Your task to perform on an android device: all mails in gmail Image 0: 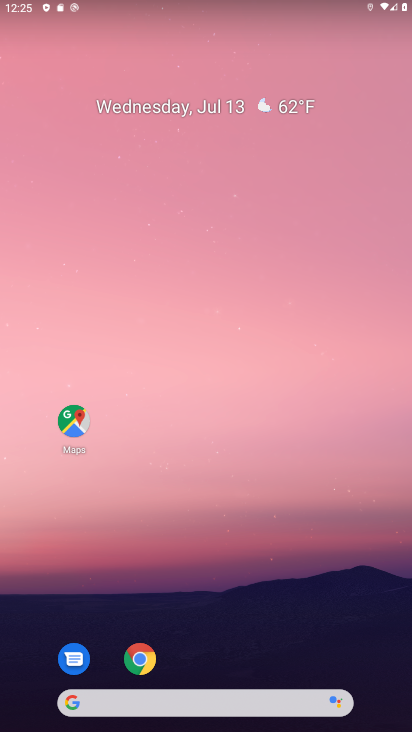
Step 0: drag from (220, 702) to (147, 238)
Your task to perform on an android device: all mails in gmail Image 1: 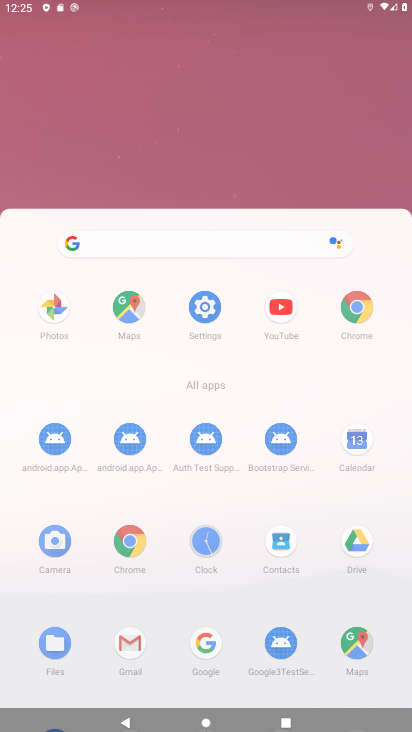
Step 1: drag from (235, 655) to (235, 323)
Your task to perform on an android device: all mails in gmail Image 2: 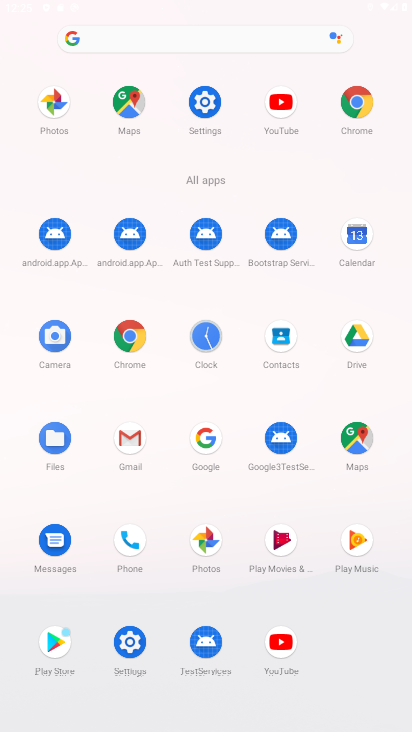
Step 2: click (128, 433)
Your task to perform on an android device: all mails in gmail Image 3: 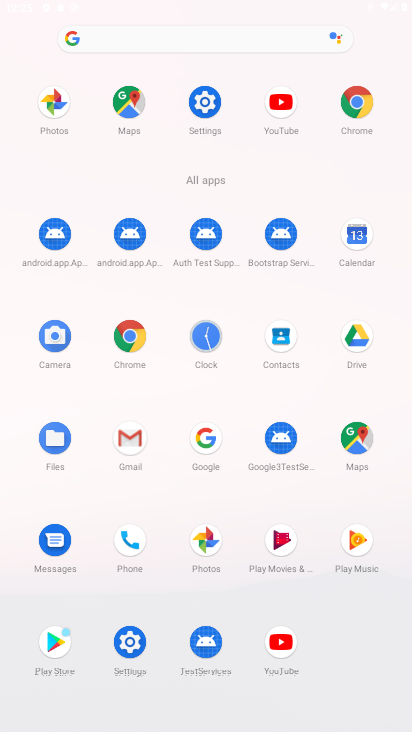
Step 3: click (127, 432)
Your task to perform on an android device: all mails in gmail Image 4: 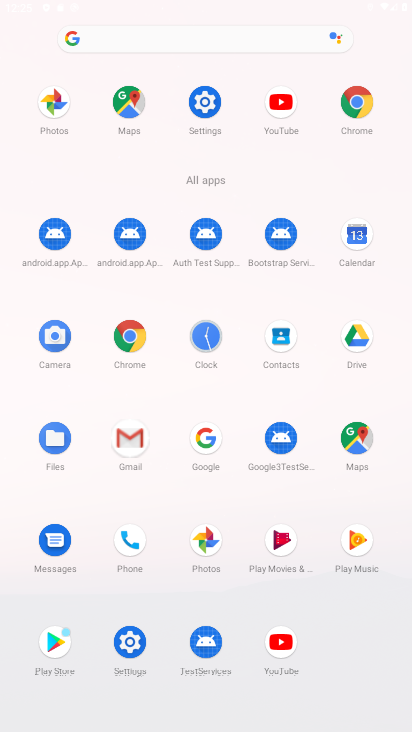
Step 4: click (129, 430)
Your task to perform on an android device: all mails in gmail Image 5: 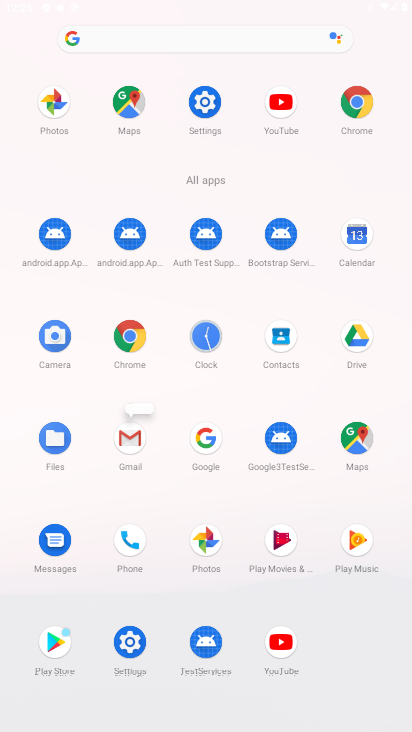
Step 5: click (129, 430)
Your task to perform on an android device: all mails in gmail Image 6: 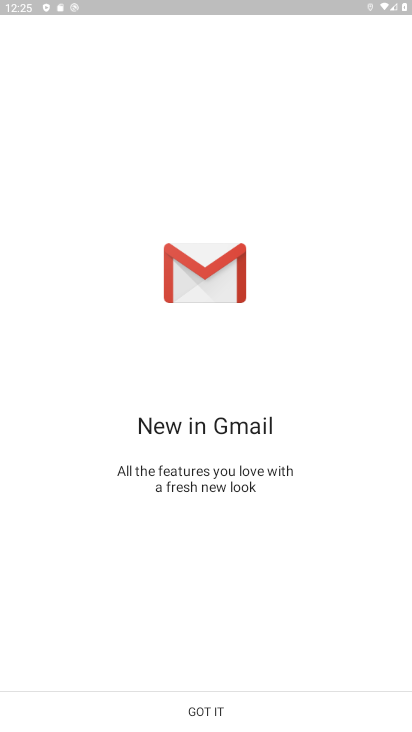
Step 6: click (217, 699)
Your task to perform on an android device: all mails in gmail Image 7: 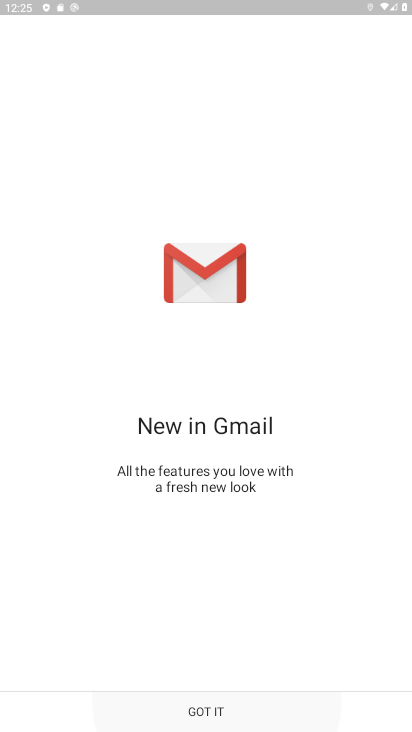
Step 7: click (217, 700)
Your task to perform on an android device: all mails in gmail Image 8: 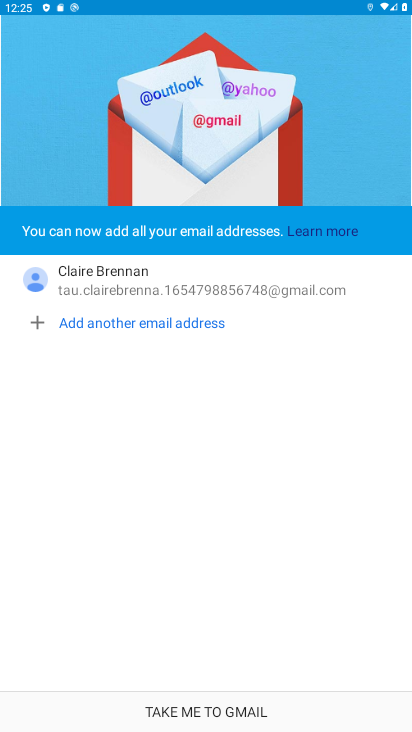
Step 8: click (202, 715)
Your task to perform on an android device: all mails in gmail Image 9: 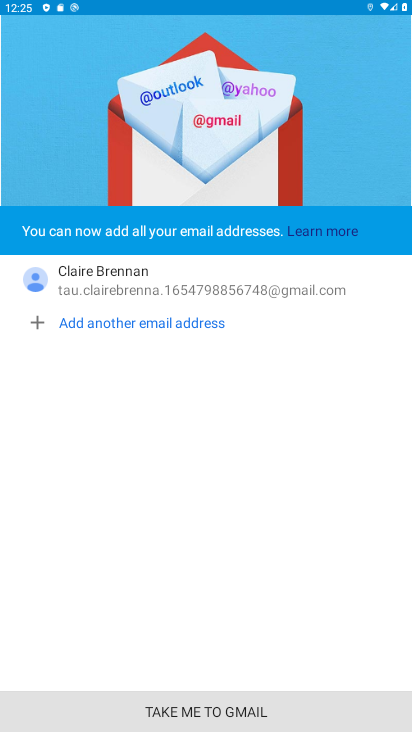
Step 9: click (202, 715)
Your task to perform on an android device: all mails in gmail Image 10: 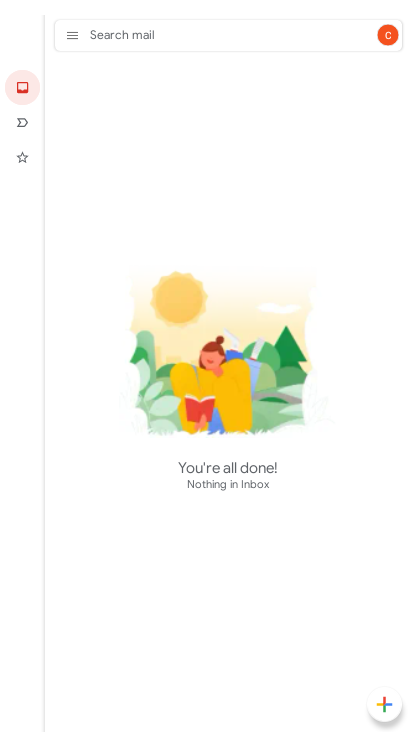
Step 10: click (75, 36)
Your task to perform on an android device: all mails in gmail Image 11: 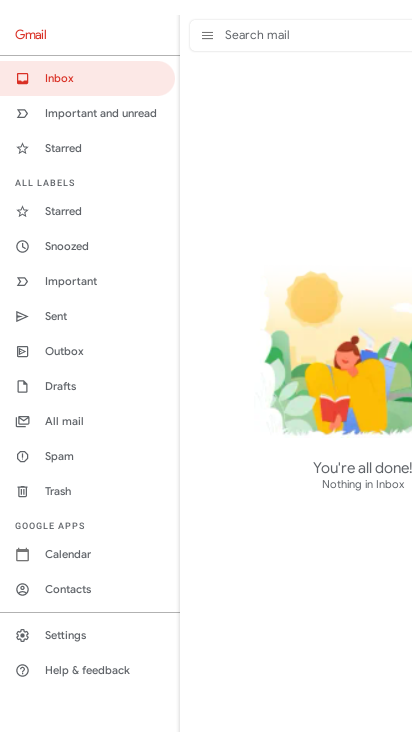
Step 11: click (191, 32)
Your task to perform on an android device: all mails in gmail Image 12: 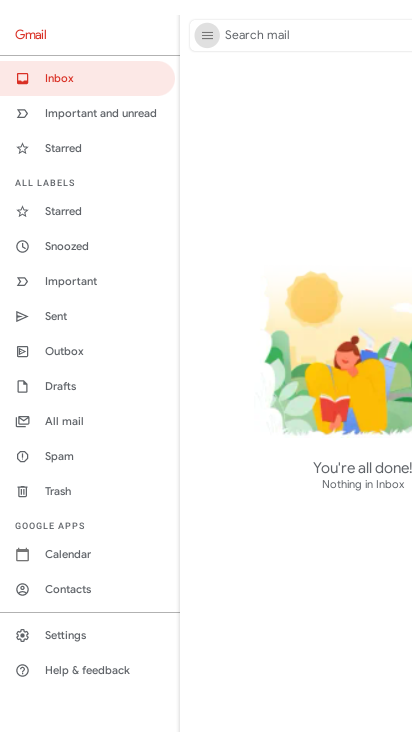
Step 12: click (191, 32)
Your task to perform on an android device: all mails in gmail Image 13: 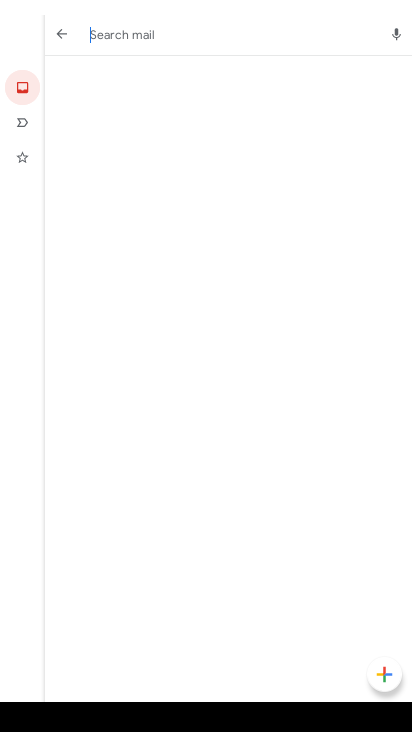
Step 13: click (65, 29)
Your task to perform on an android device: all mails in gmail Image 14: 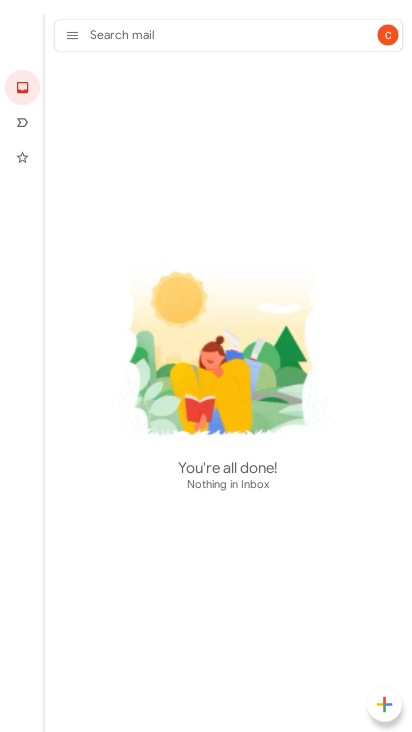
Step 14: click (70, 33)
Your task to perform on an android device: all mails in gmail Image 15: 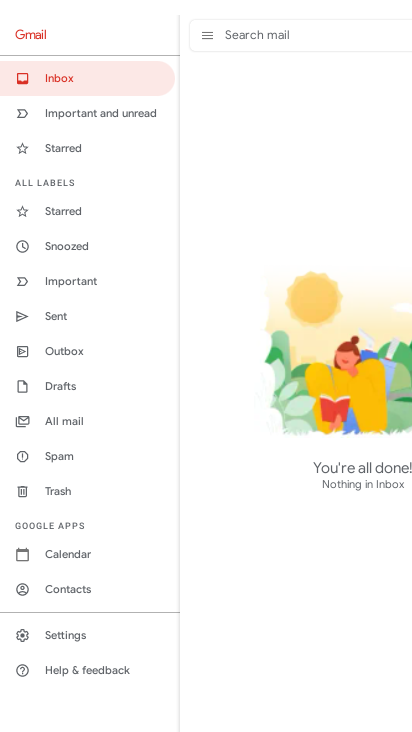
Step 15: click (213, 29)
Your task to perform on an android device: all mails in gmail Image 16: 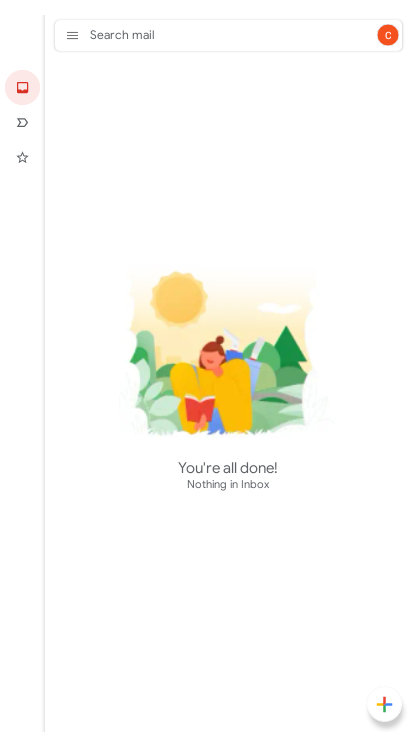
Step 16: click (78, 30)
Your task to perform on an android device: all mails in gmail Image 17: 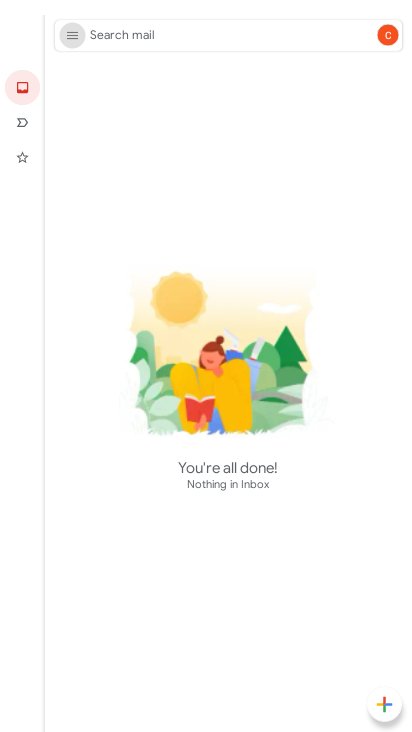
Step 17: click (78, 30)
Your task to perform on an android device: all mails in gmail Image 18: 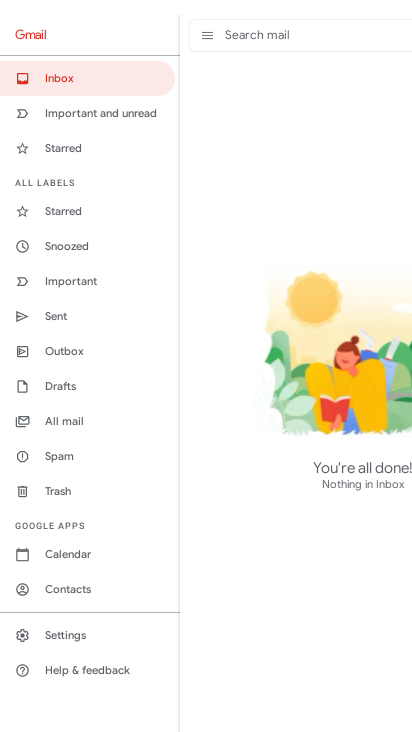
Step 18: click (78, 30)
Your task to perform on an android device: all mails in gmail Image 19: 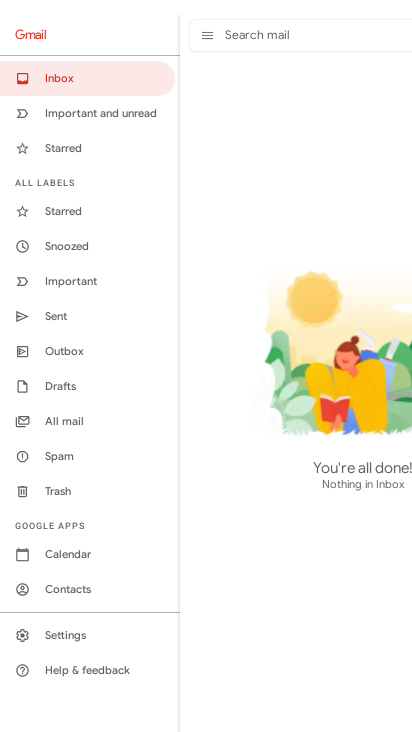
Step 19: click (65, 419)
Your task to perform on an android device: all mails in gmail Image 20: 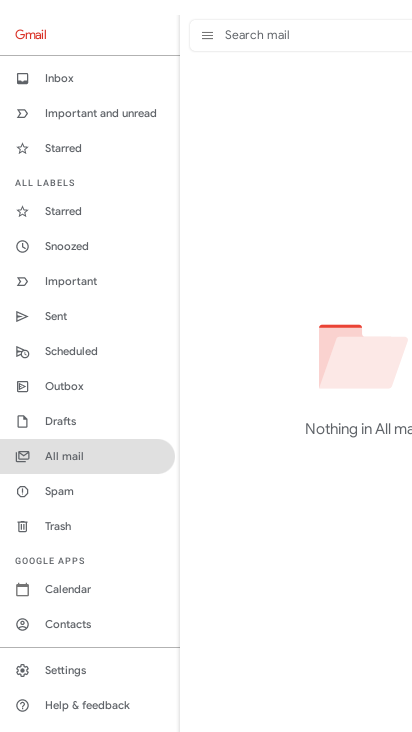
Step 20: task complete